Your task to perform on an android device: Open the calendar app, open the side menu, and click the "Day" option Image 0: 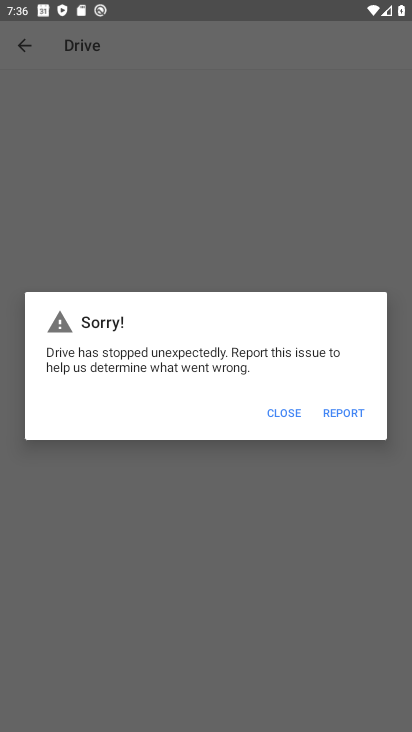
Step 0: press home button
Your task to perform on an android device: Open the calendar app, open the side menu, and click the "Day" option Image 1: 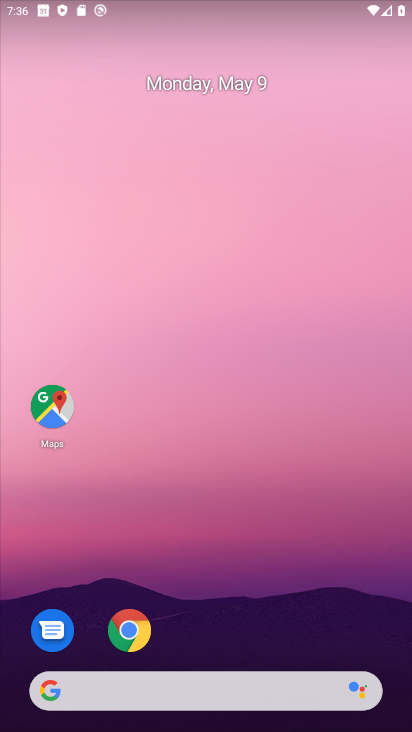
Step 1: drag from (353, 628) to (363, 259)
Your task to perform on an android device: Open the calendar app, open the side menu, and click the "Day" option Image 2: 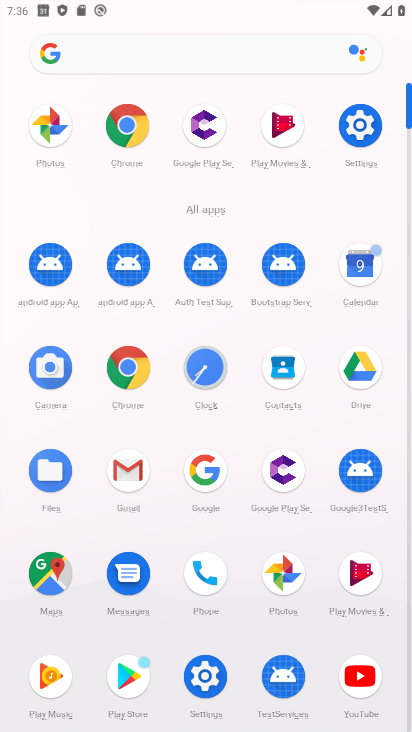
Step 2: click (352, 271)
Your task to perform on an android device: Open the calendar app, open the side menu, and click the "Day" option Image 3: 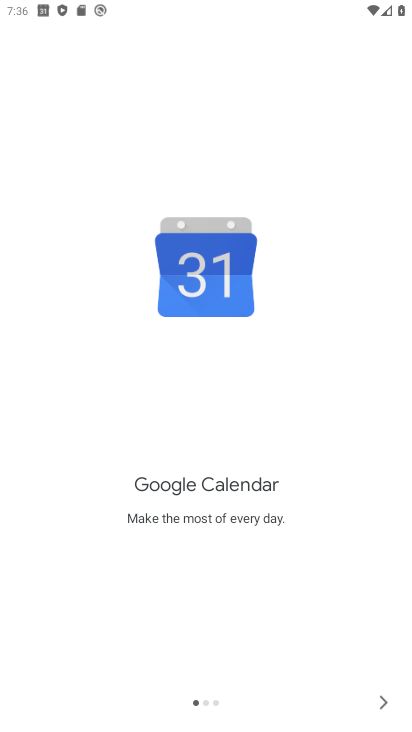
Step 3: click (378, 695)
Your task to perform on an android device: Open the calendar app, open the side menu, and click the "Day" option Image 4: 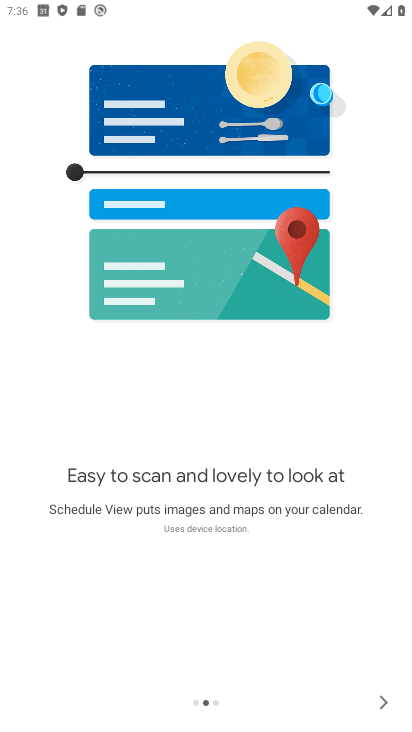
Step 4: click (378, 696)
Your task to perform on an android device: Open the calendar app, open the side menu, and click the "Day" option Image 5: 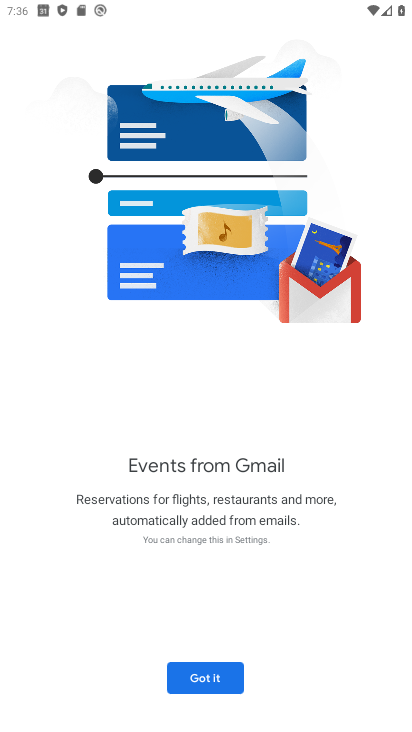
Step 5: click (187, 682)
Your task to perform on an android device: Open the calendar app, open the side menu, and click the "Day" option Image 6: 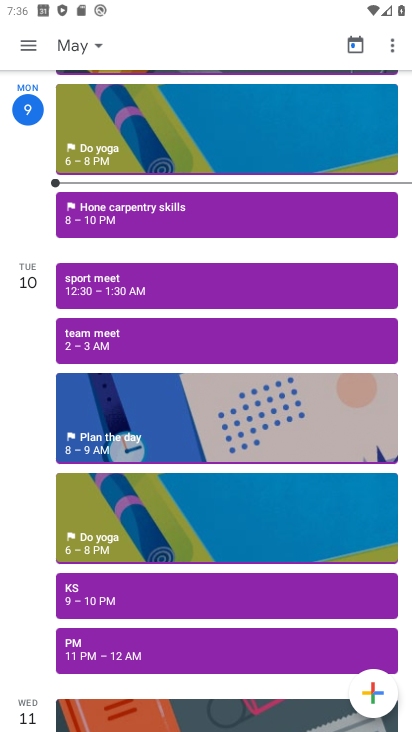
Step 6: click (23, 40)
Your task to perform on an android device: Open the calendar app, open the side menu, and click the "Day" option Image 7: 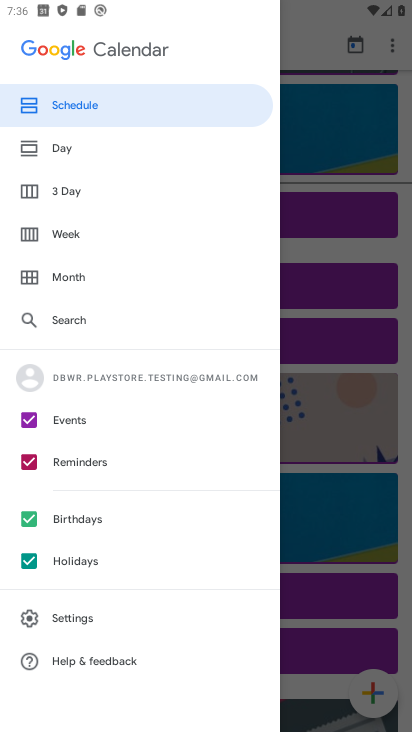
Step 7: click (58, 150)
Your task to perform on an android device: Open the calendar app, open the side menu, and click the "Day" option Image 8: 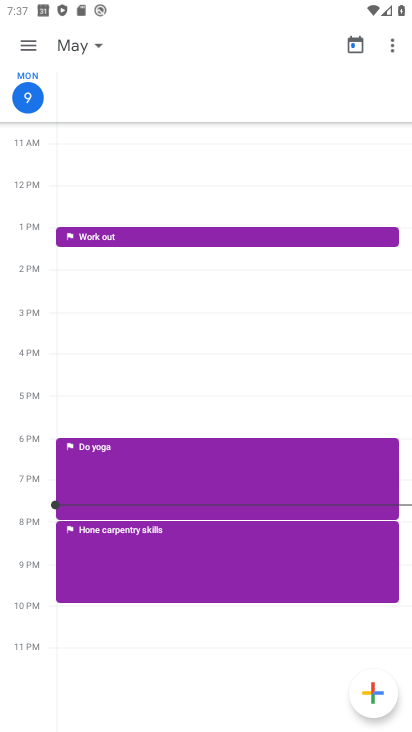
Step 8: task complete